Your task to perform on an android device: Show me recent news Image 0: 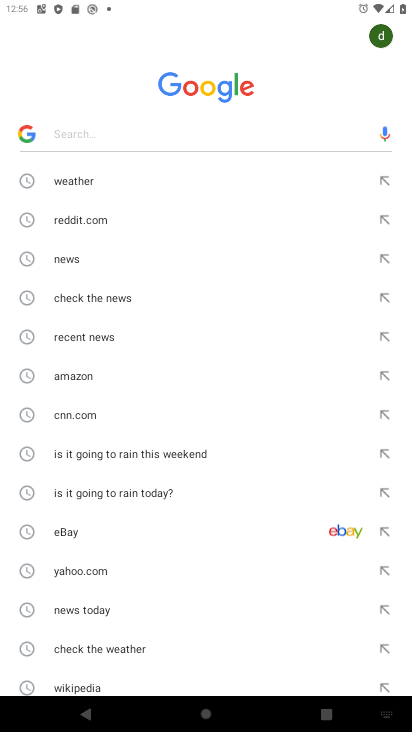
Step 0: press home button
Your task to perform on an android device: Show me recent news Image 1: 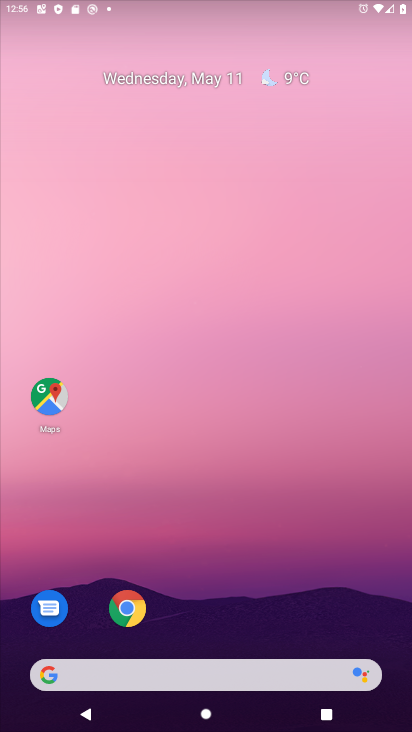
Step 1: drag from (343, 603) to (326, 44)
Your task to perform on an android device: Show me recent news Image 2: 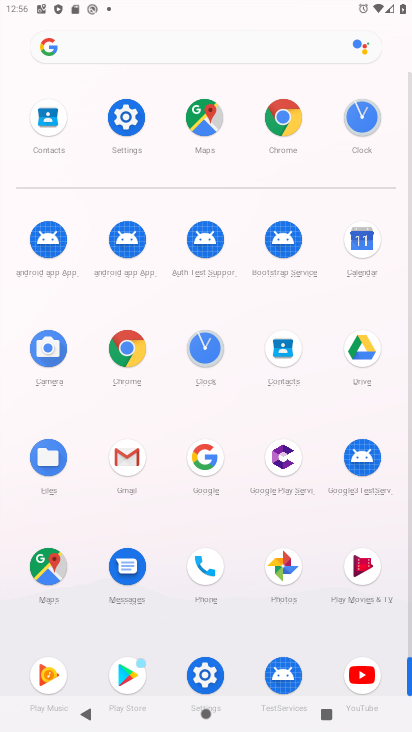
Step 2: click (216, 468)
Your task to perform on an android device: Show me recent news Image 3: 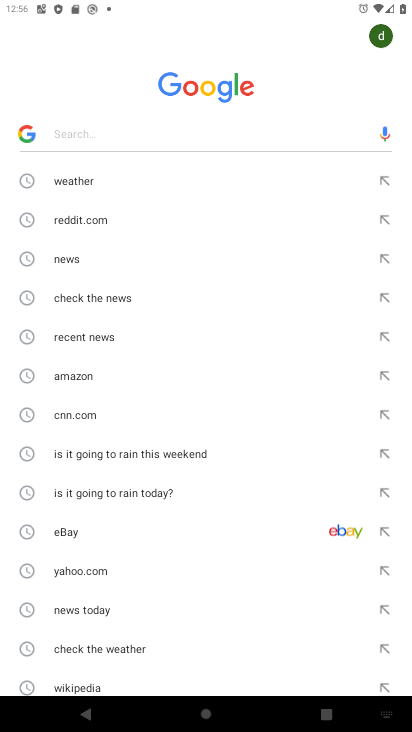
Step 3: click (124, 266)
Your task to perform on an android device: Show me recent news Image 4: 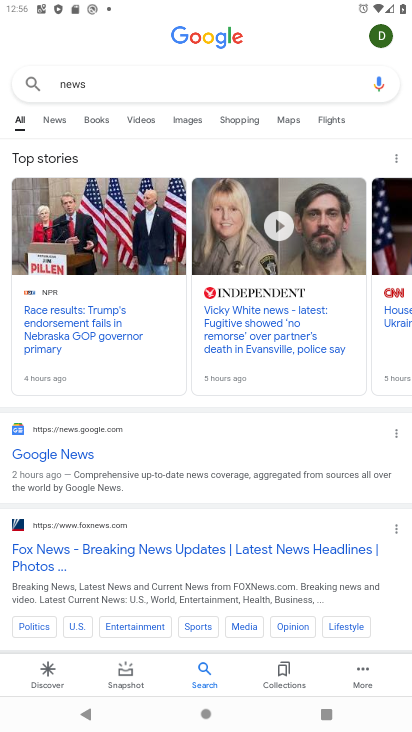
Step 4: click (53, 124)
Your task to perform on an android device: Show me recent news Image 5: 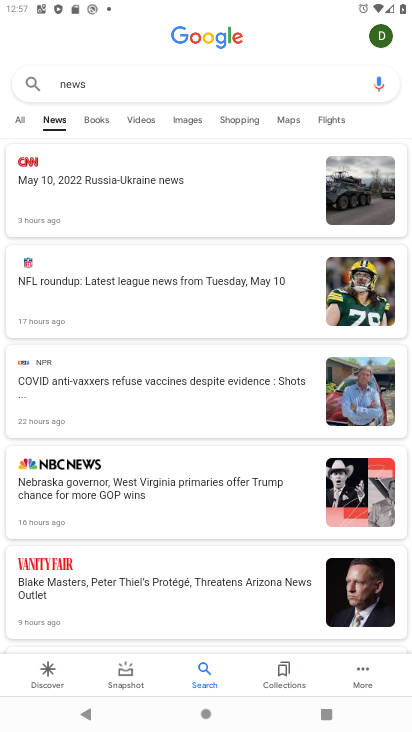
Step 5: task complete